Your task to perform on an android device: turn on bluetooth scan Image 0: 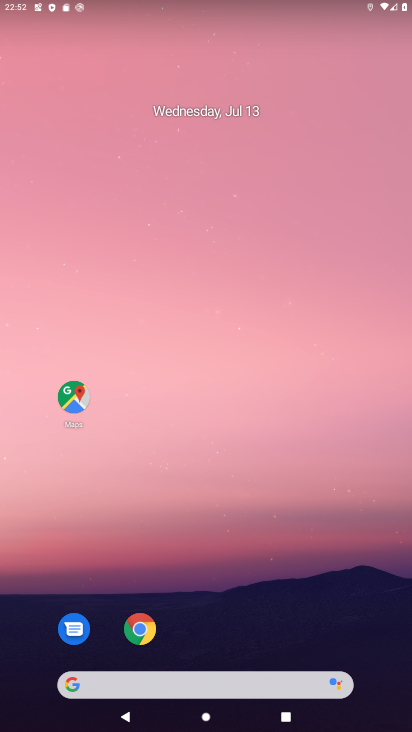
Step 0: press home button
Your task to perform on an android device: turn on bluetooth scan Image 1: 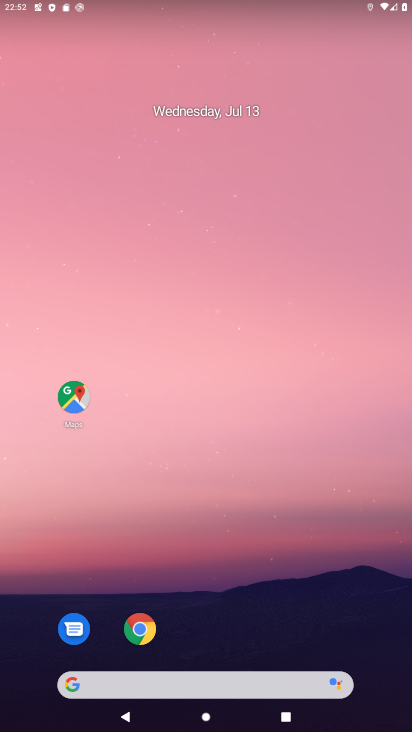
Step 1: drag from (212, 651) to (213, 39)
Your task to perform on an android device: turn on bluetooth scan Image 2: 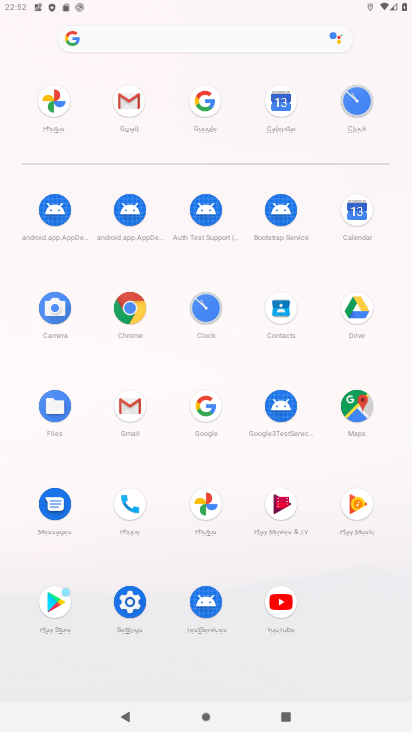
Step 2: click (129, 598)
Your task to perform on an android device: turn on bluetooth scan Image 3: 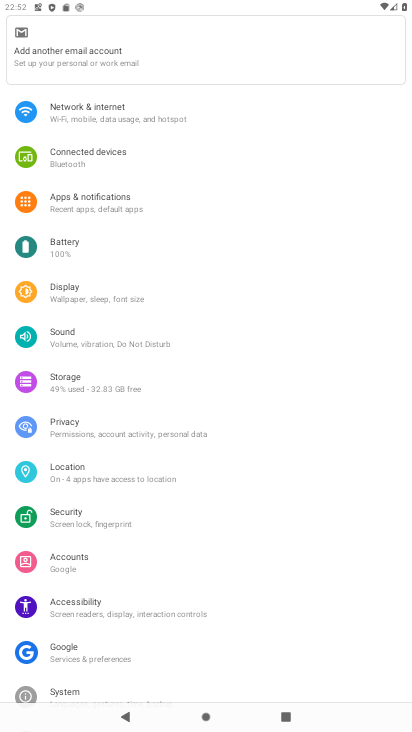
Step 3: click (100, 467)
Your task to perform on an android device: turn on bluetooth scan Image 4: 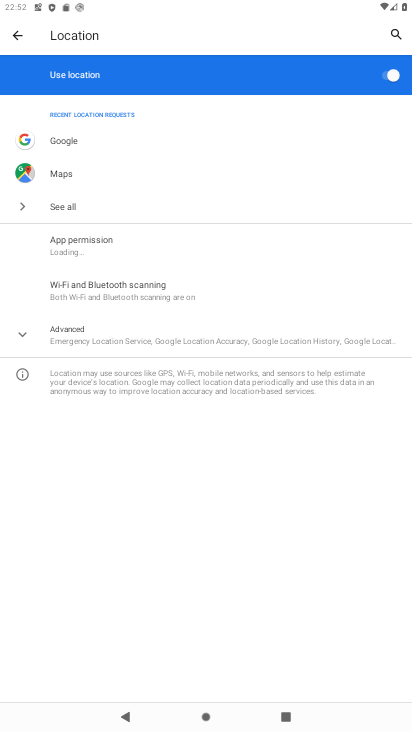
Step 4: click (20, 331)
Your task to perform on an android device: turn on bluetooth scan Image 5: 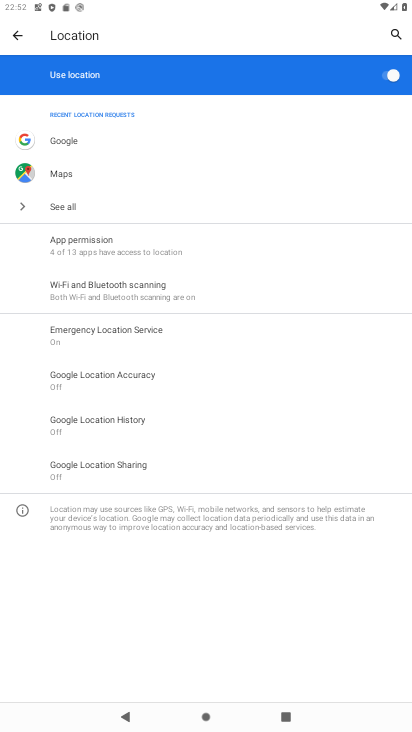
Step 5: click (136, 294)
Your task to perform on an android device: turn on bluetooth scan Image 6: 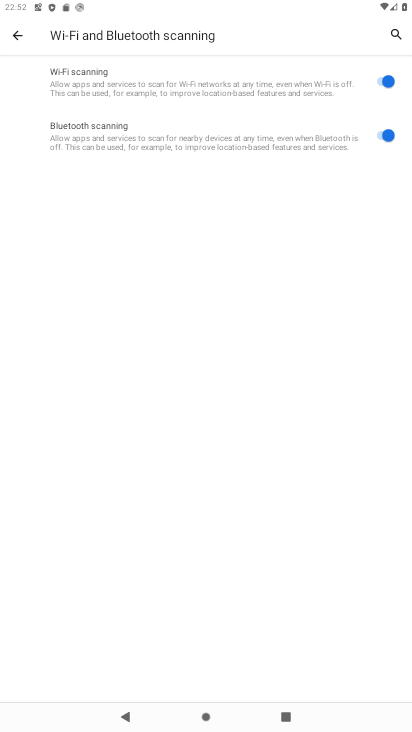
Step 6: task complete